Your task to perform on an android device: Search for Italian restaurants on Maps Image 0: 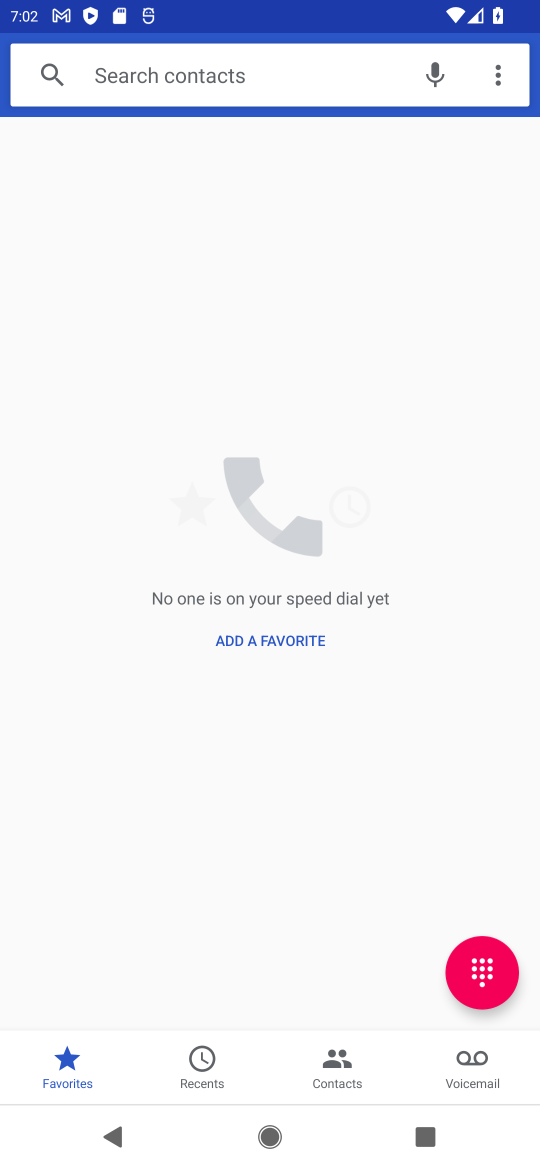
Step 0: press home button
Your task to perform on an android device: Search for Italian restaurants on Maps Image 1: 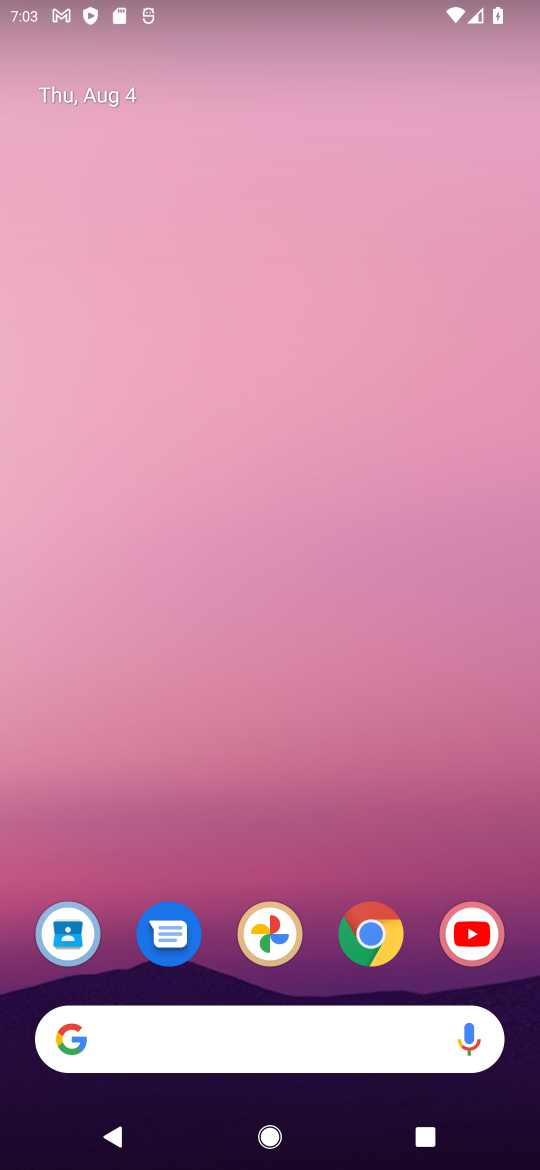
Step 1: click (277, 353)
Your task to perform on an android device: Search for Italian restaurants on Maps Image 2: 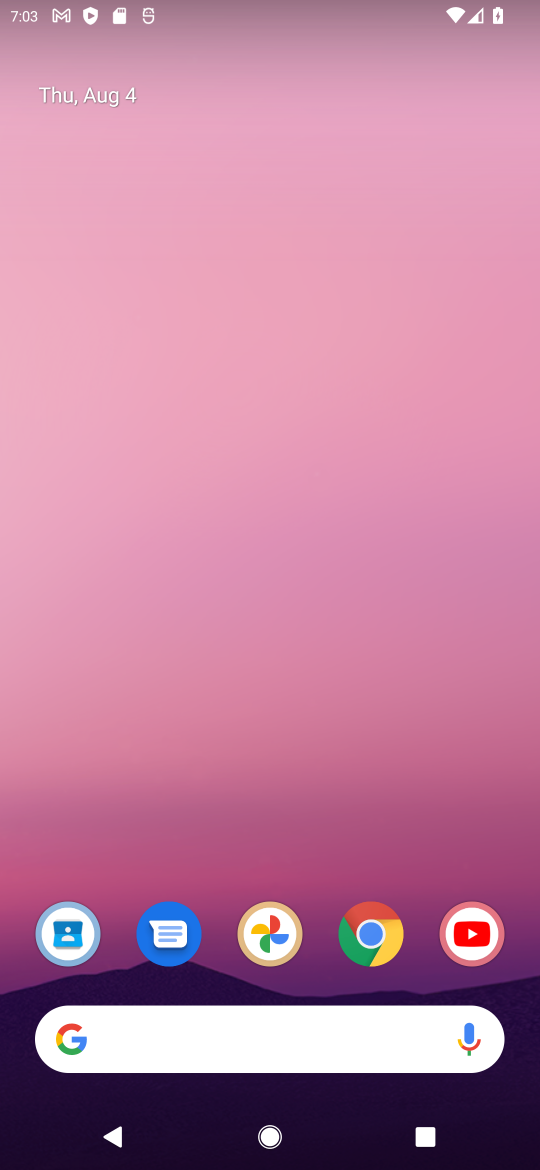
Step 2: drag from (326, 698) to (362, 22)
Your task to perform on an android device: Search for Italian restaurants on Maps Image 3: 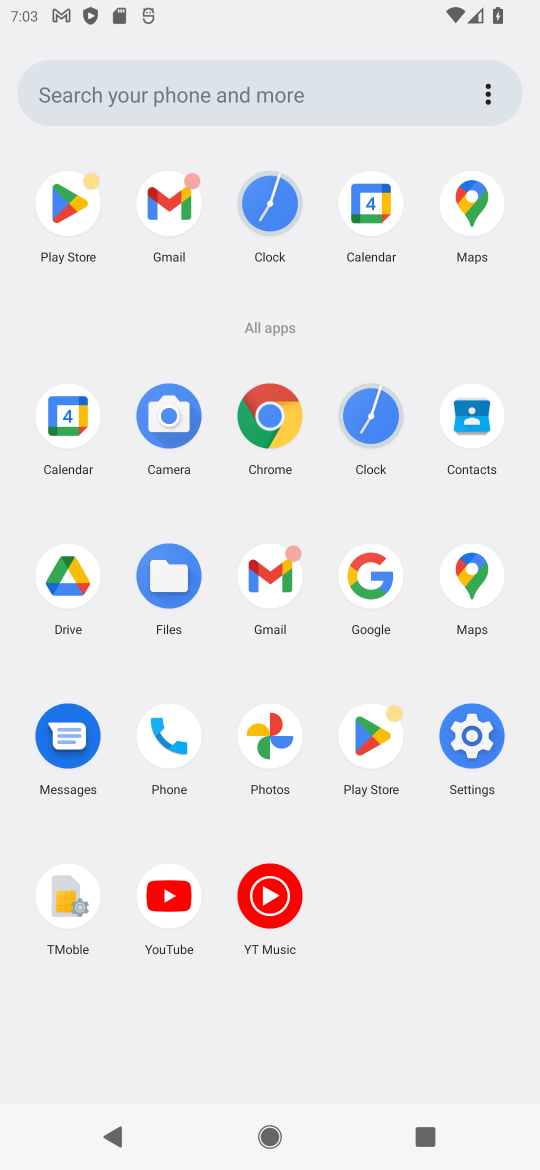
Step 3: click (475, 604)
Your task to perform on an android device: Search for Italian restaurants on Maps Image 4: 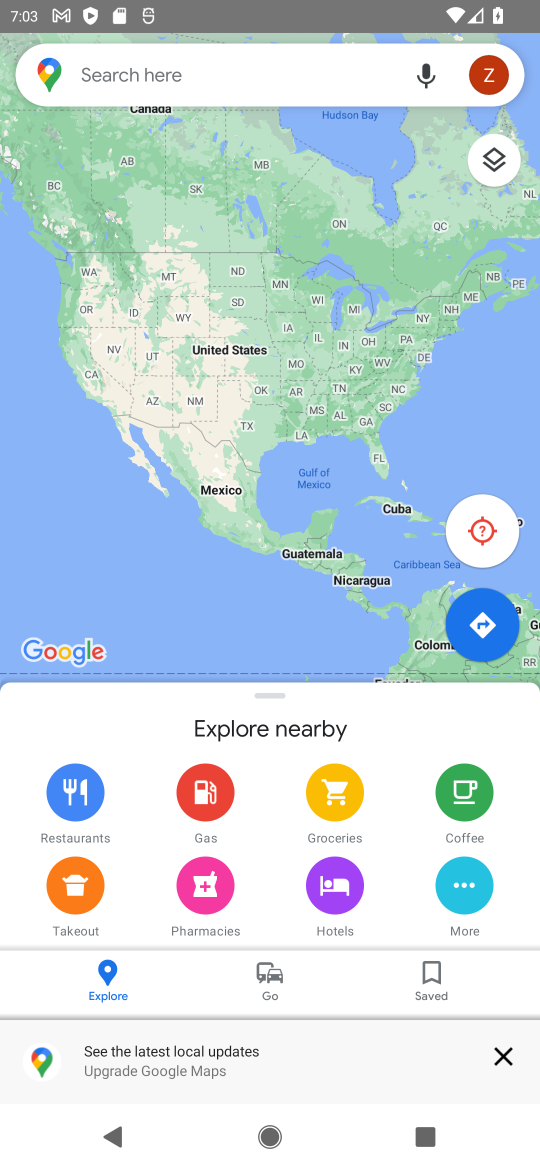
Step 4: click (227, 94)
Your task to perform on an android device: Search for Italian restaurants on Maps Image 5: 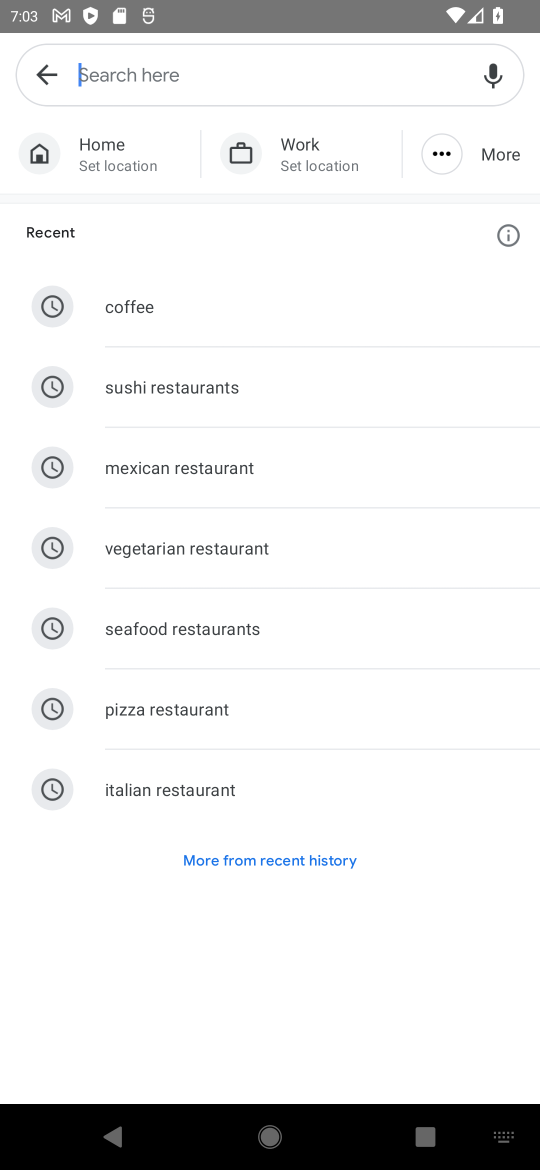
Step 5: type "italian restaurants"
Your task to perform on an android device: Search for Italian restaurants on Maps Image 6: 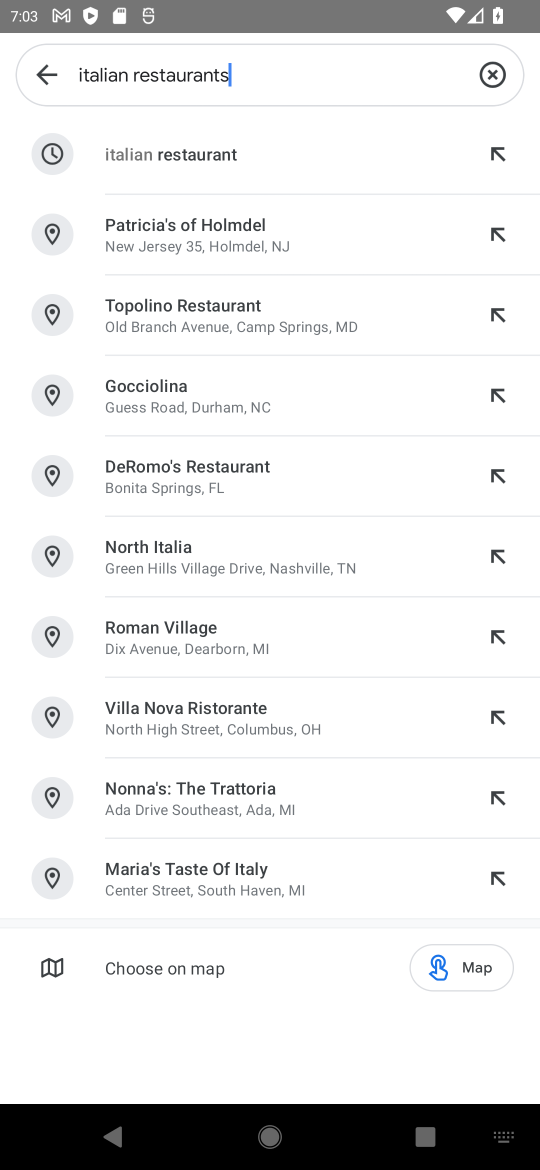
Step 6: click (221, 133)
Your task to perform on an android device: Search for Italian restaurants on Maps Image 7: 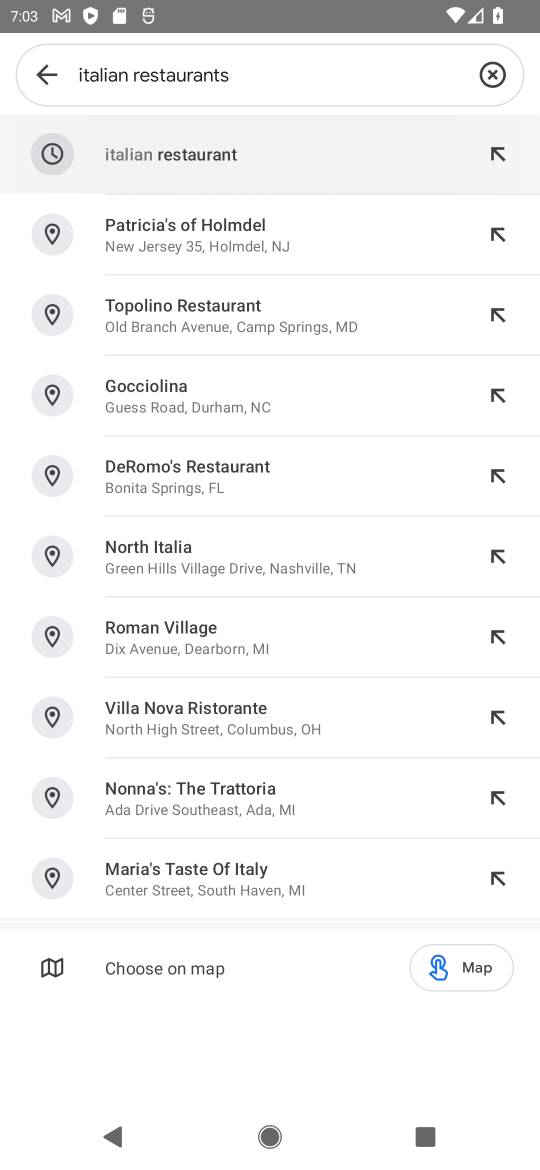
Step 7: click (214, 162)
Your task to perform on an android device: Search for Italian restaurants on Maps Image 8: 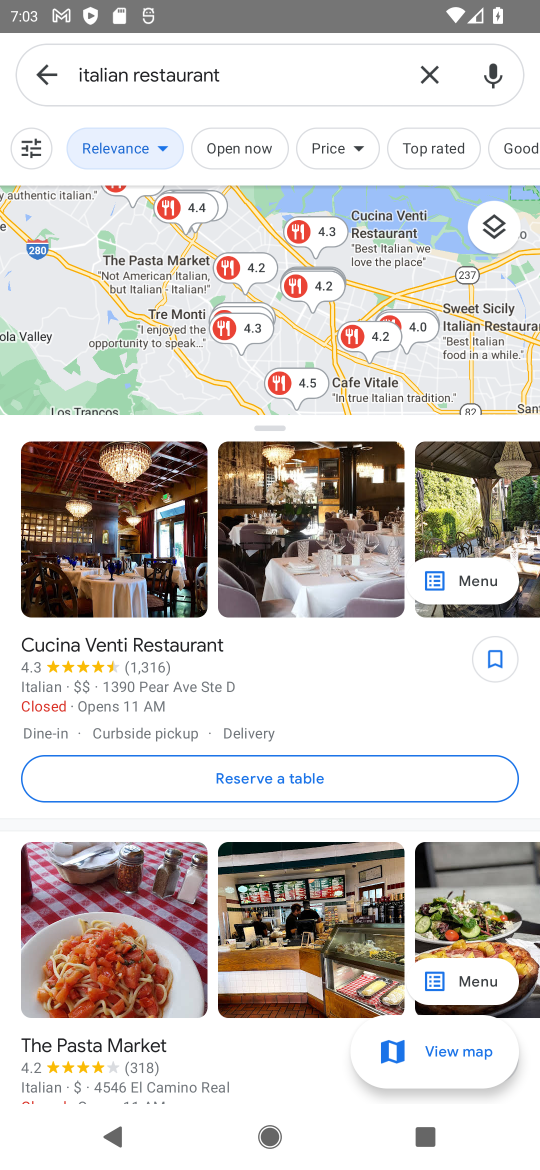
Step 8: task complete